Your task to perform on an android device: open chrome and create a bookmark for the current page Image 0: 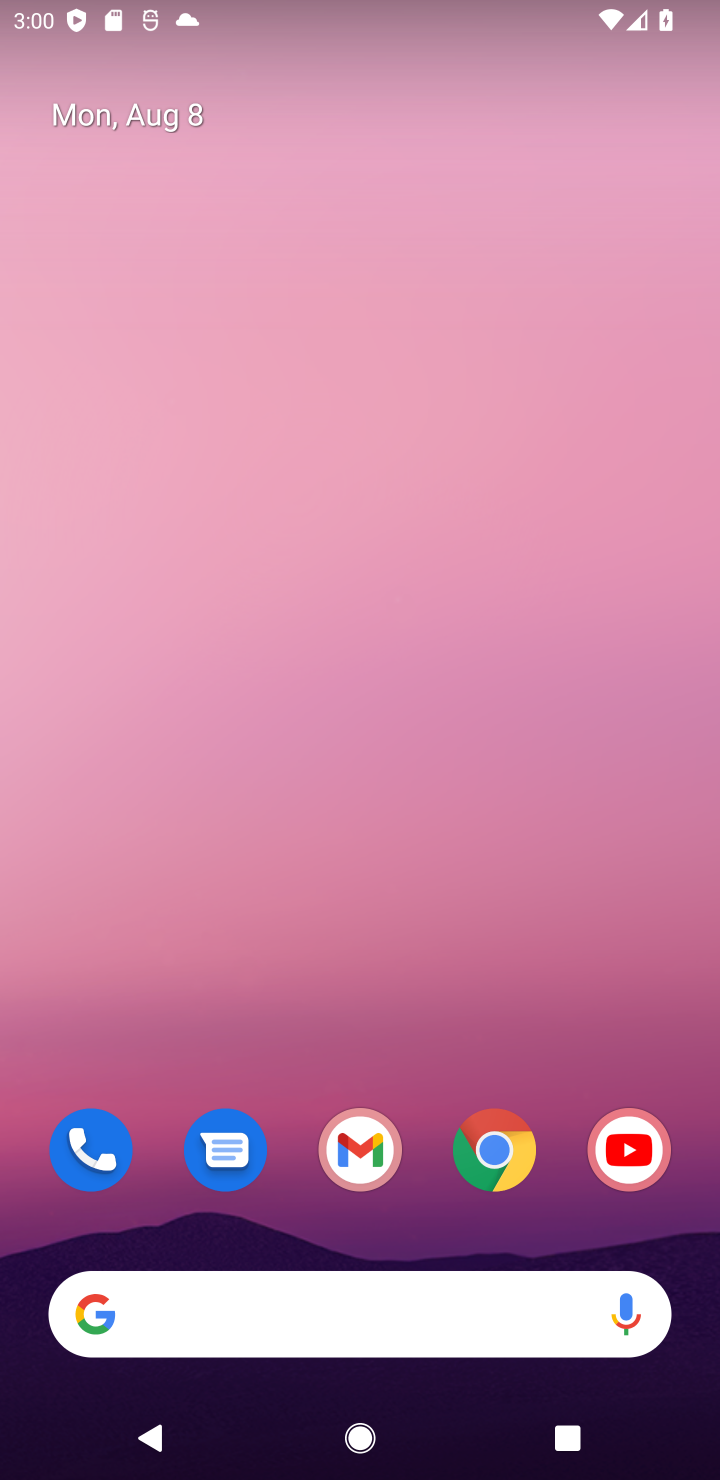
Step 0: click (500, 1134)
Your task to perform on an android device: open chrome and create a bookmark for the current page Image 1: 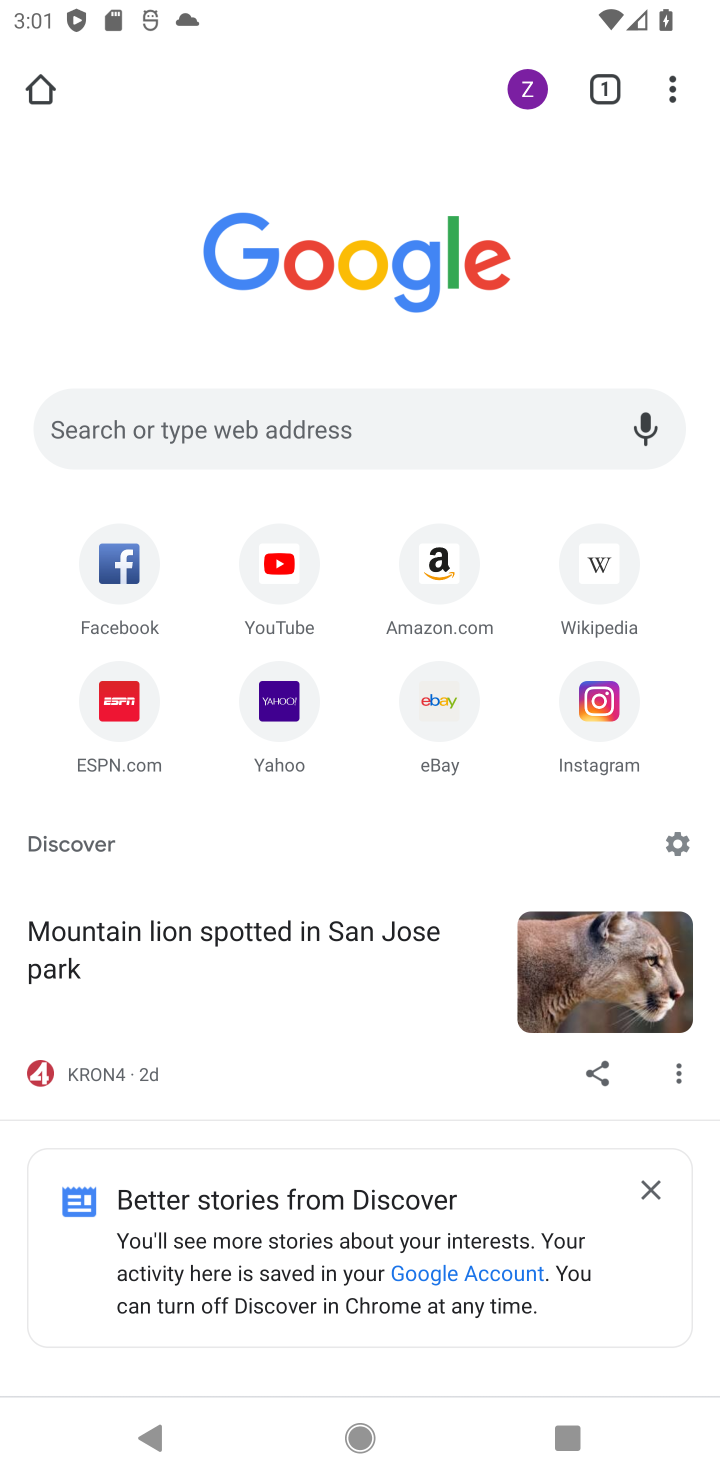
Step 1: click (670, 79)
Your task to perform on an android device: open chrome and create a bookmark for the current page Image 2: 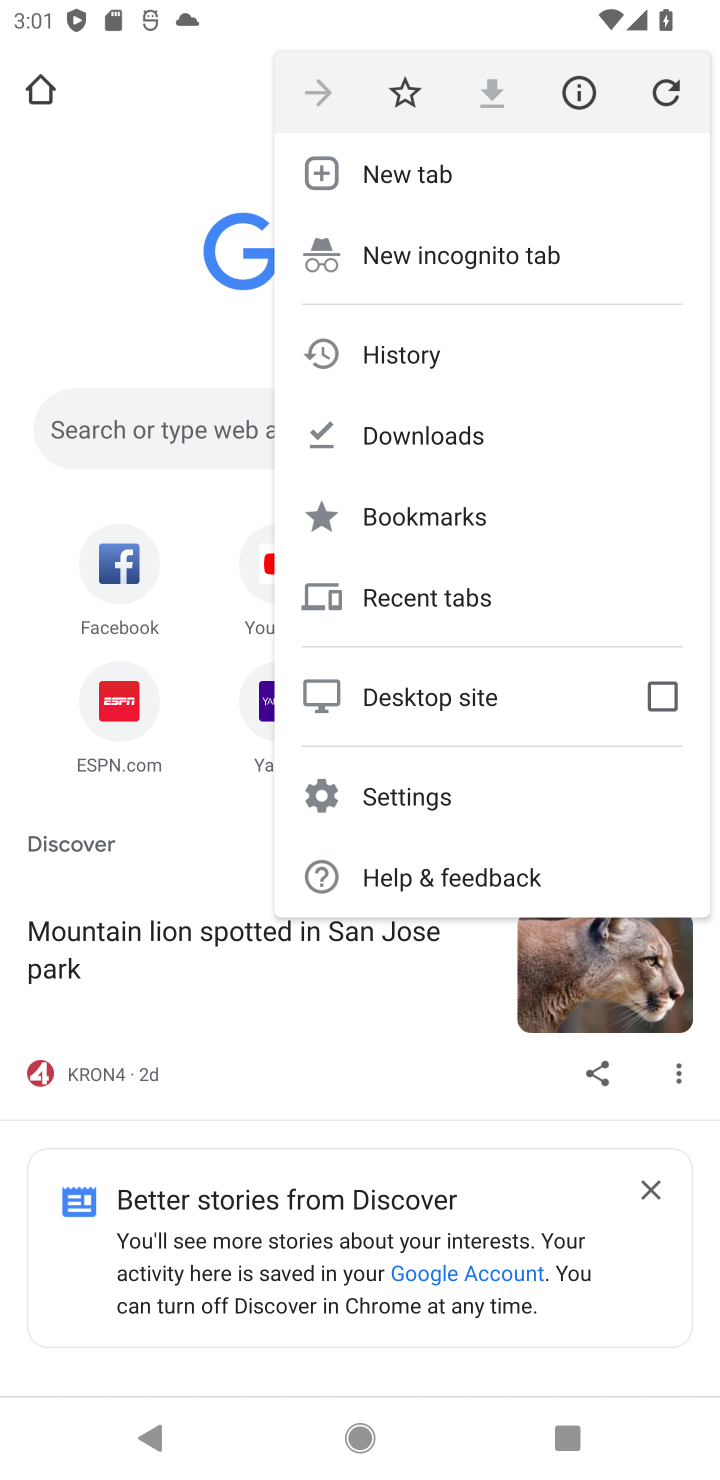
Step 2: click (392, 515)
Your task to perform on an android device: open chrome and create a bookmark for the current page Image 3: 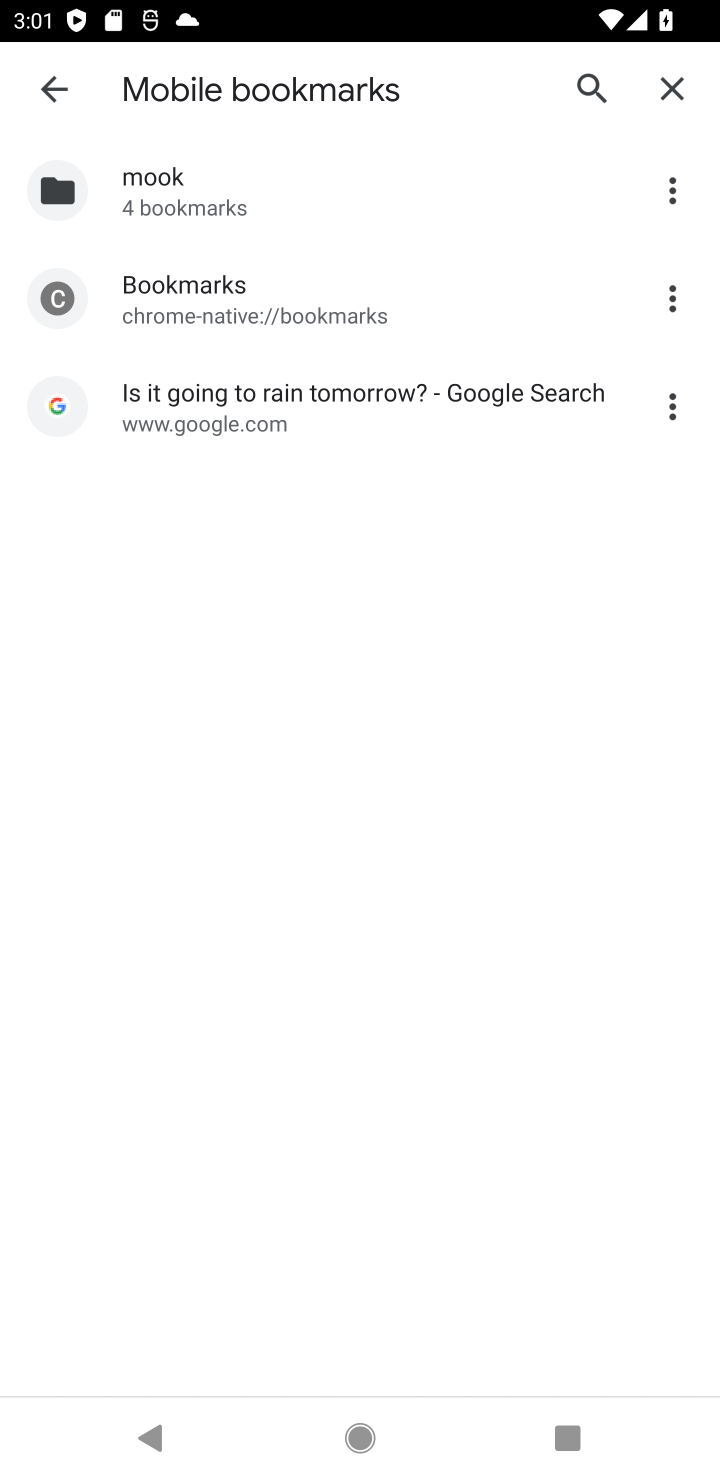
Step 3: task complete